Your task to perform on an android device: choose inbox layout in the gmail app Image 0: 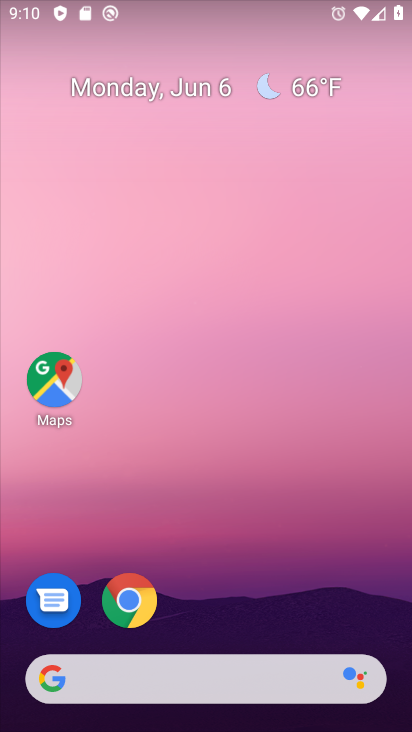
Step 0: drag from (58, 568) to (262, 244)
Your task to perform on an android device: choose inbox layout in the gmail app Image 1: 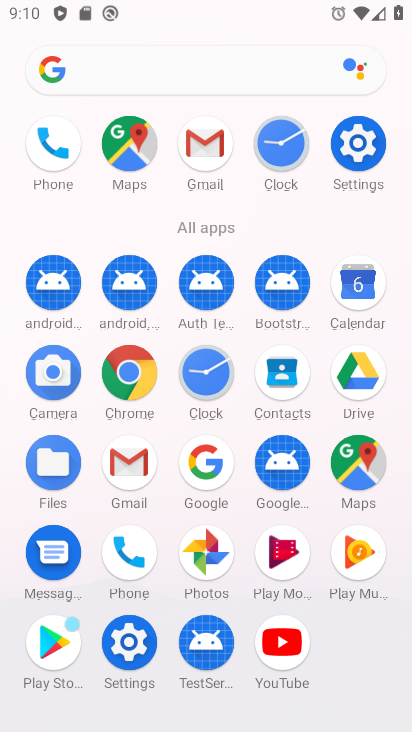
Step 1: click (205, 134)
Your task to perform on an android device: choose inbox layout in the gmail app Image 2: 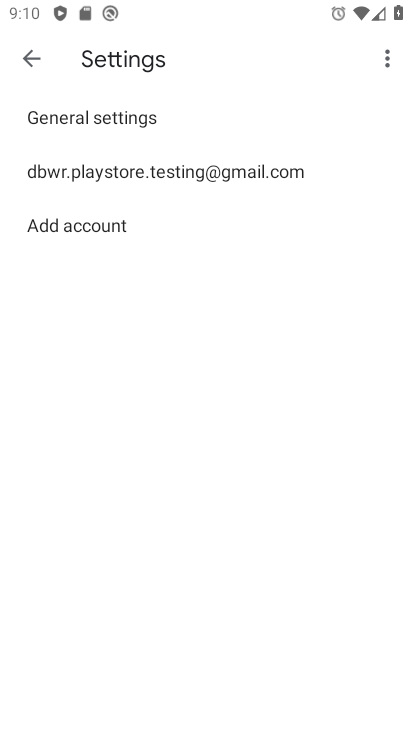
Step 2: click (192, 176)
Your task to perform on an android device: choose inbox layout in the gmail app Image 3: 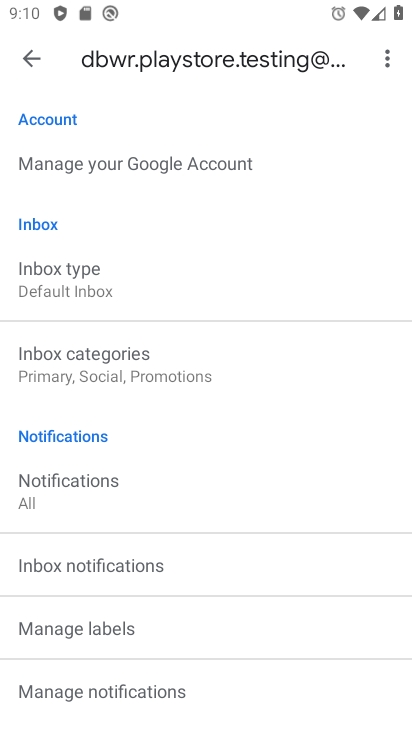
Step 3: click (164, 374)
Your task to perform on an android device: choose inbox layout in the gmail app Image 4: 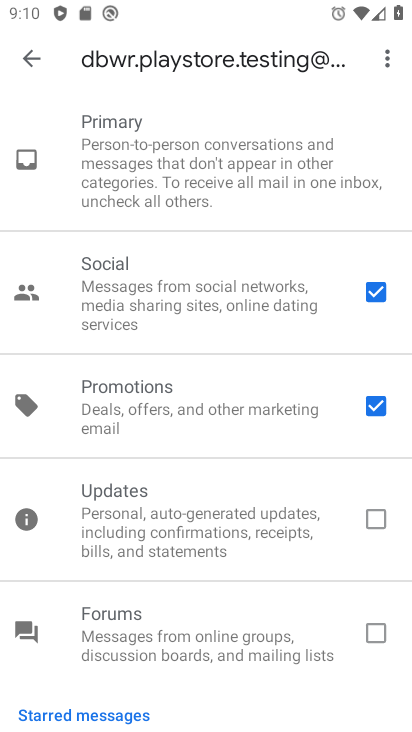
Step 4: task complete